Your task to perform on an android device: What's on my calendar today? Image 0: 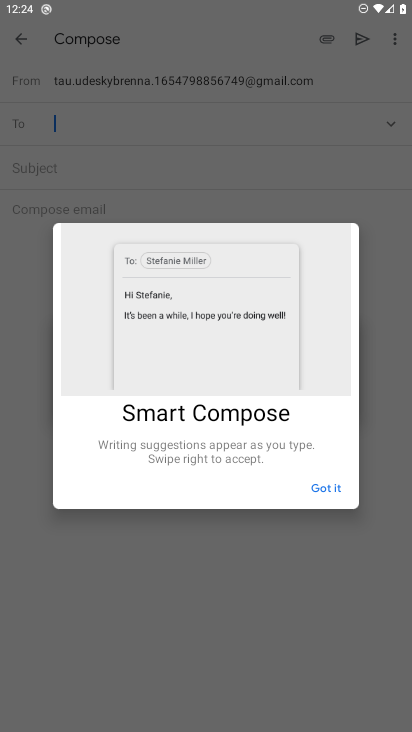
Step 0: press home button
Your task to perform on an android device: What's on my calendar today? Image 1: 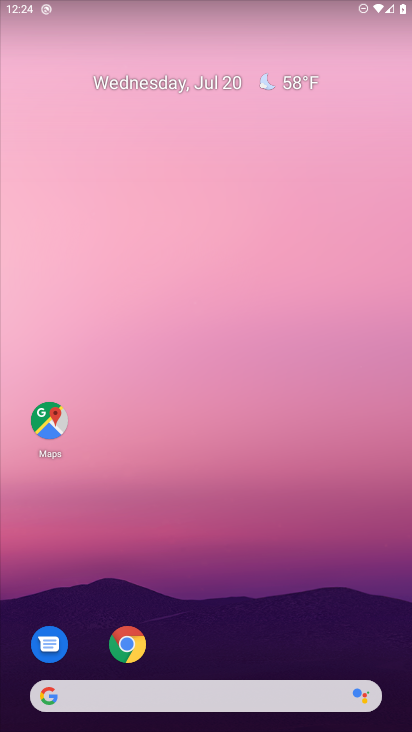
Step 1: drag from (10, 713) to (306, 15)
Your task to perform on an android device: What's on my calendar today? Image 2: 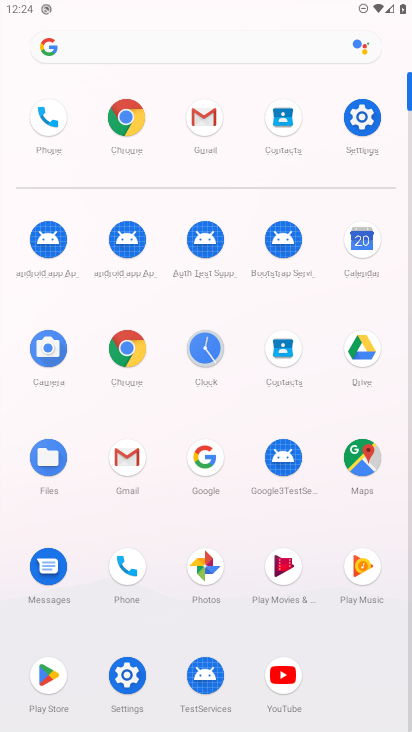
Step 2: click (358, 250)
Your task to perform on an android device: What's on my calendar today? Image 3: 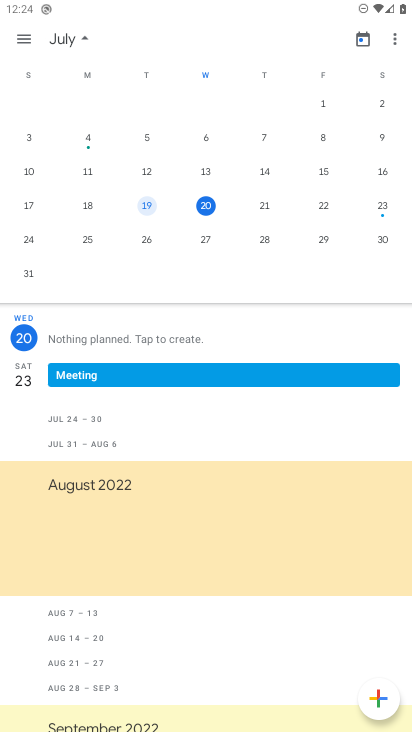
Step 3: task complete